Your task to perform on an android device: delete the emails in spam in the gmail app Image 0: 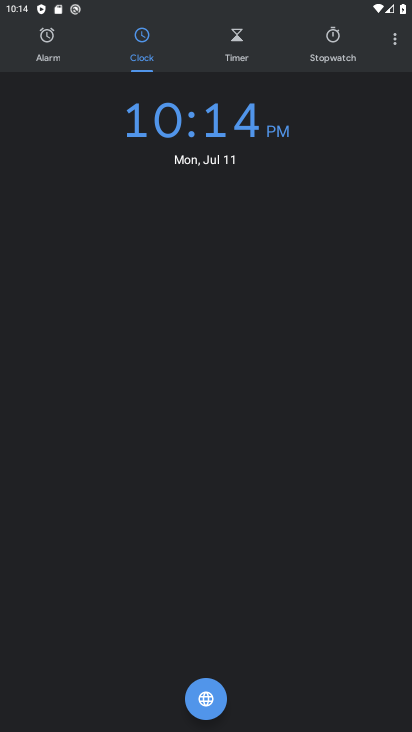
Step 0: press home button
Your task to perform on an android device: delete the emails in spam in the gmail app Image 1: 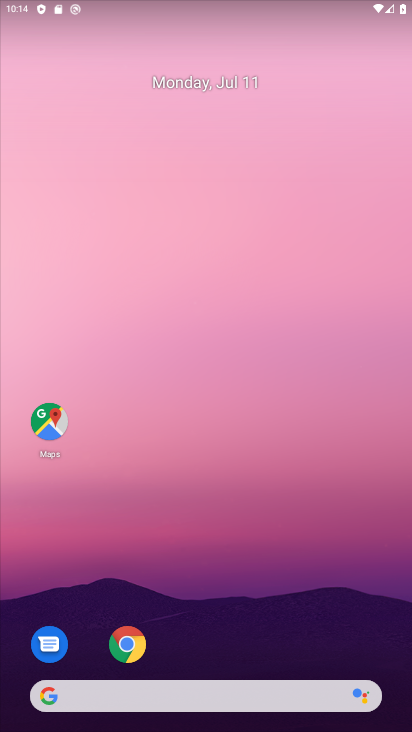
Step 1: drag from (192, 665) to (177, 10)
Your task to perform on an android device: delete the emails in spam in the gmail app Image 2: 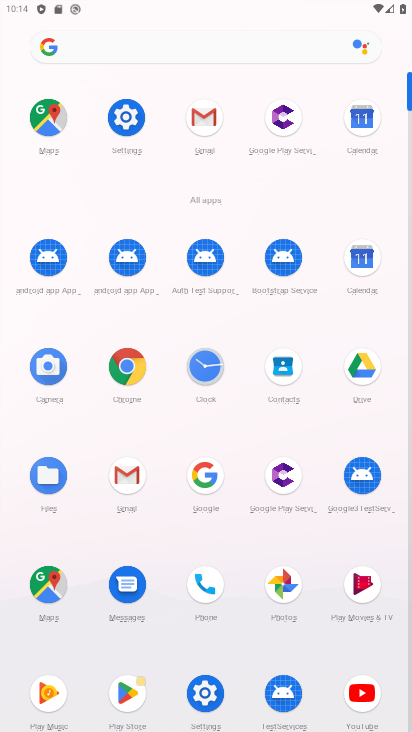
Step 2: click (128, 482)
Your task to perform on an android device: delete the emails in spam in the gmail app Image 3: 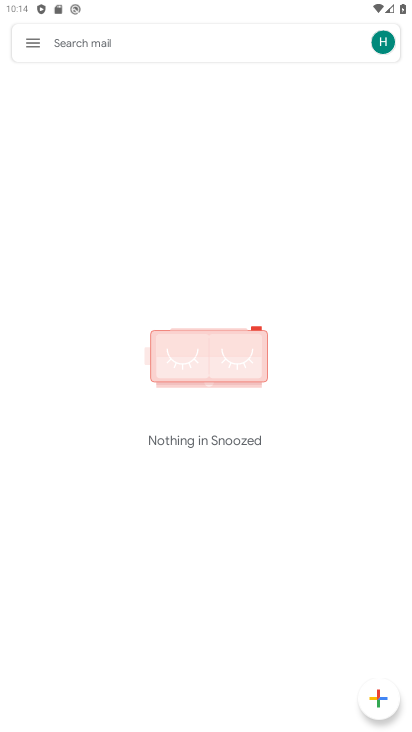
Step 3: click (33, 33)
Your task to perform on an android device: delete the emails in spam in the gmail app Image 4: 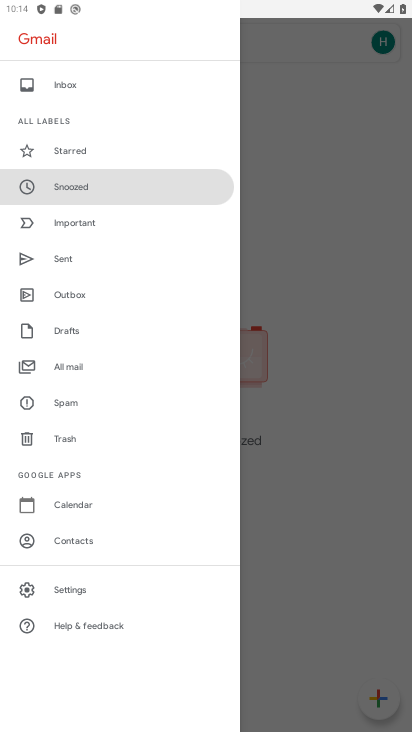
Step 4: click (73, 399)
Your task to perform on an android device: delete the emails in spam in the gmail app Image 5: 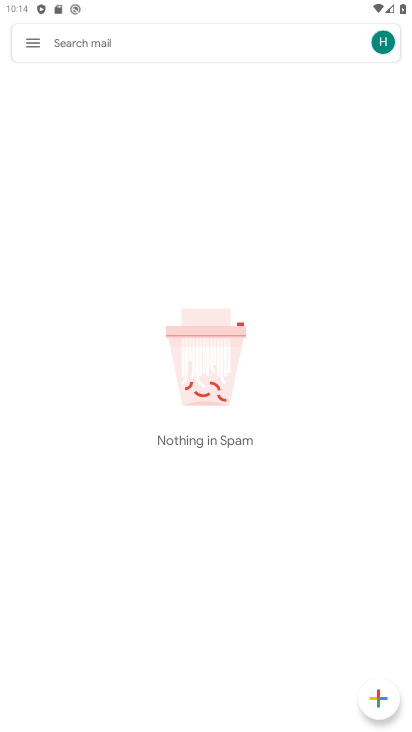
Step 5: task complete